Your task to perform on an android device: Open my contact list Image 0: 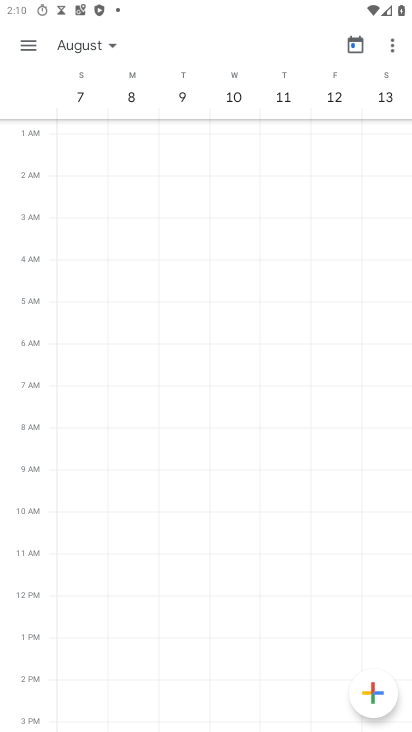
Step 0: press home button
Your task to perform on an android device: Open my contact list Image 1: 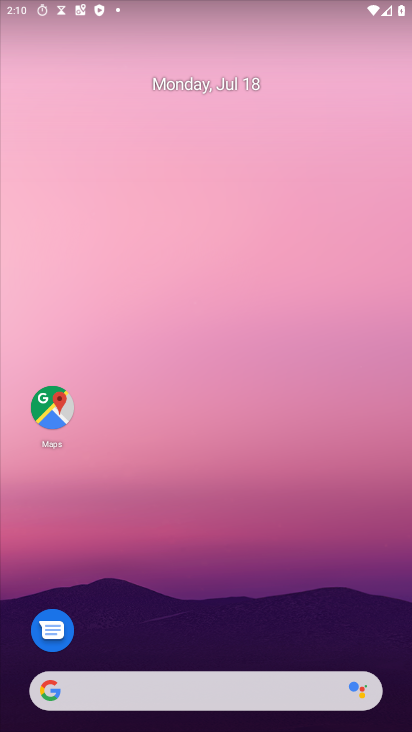
Step 1: drag from (206, 731) to (240, 116)
Your task to perform on an android device: Open my contact list Image 2: 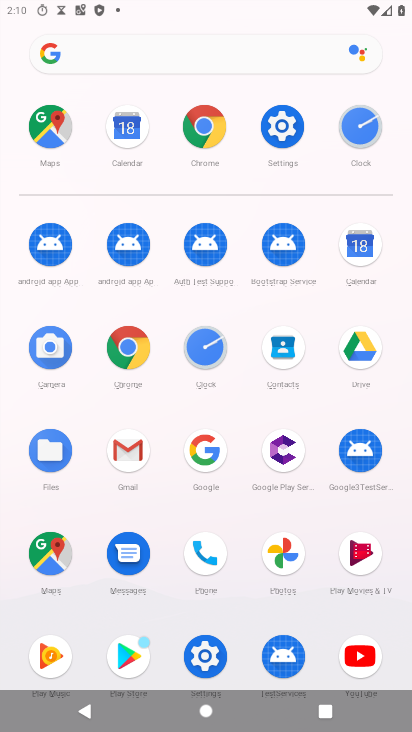
Step 2: click (281, 353)
Your task to perform on an android device: Open my contact list Image 3: 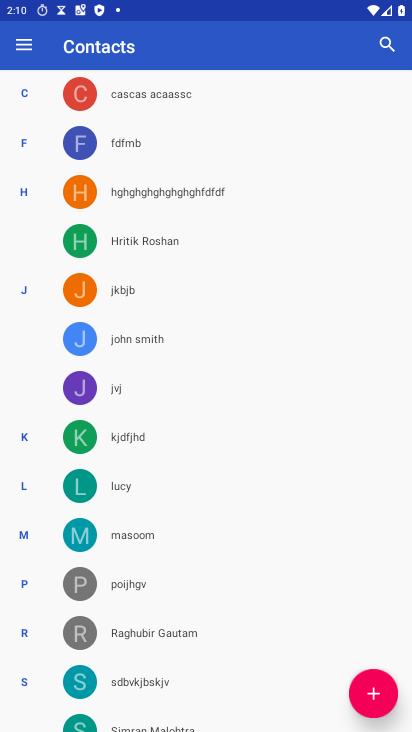
Step 3: click (378, 690)
Your task to perform on an android device: Open my contact list Image 4: 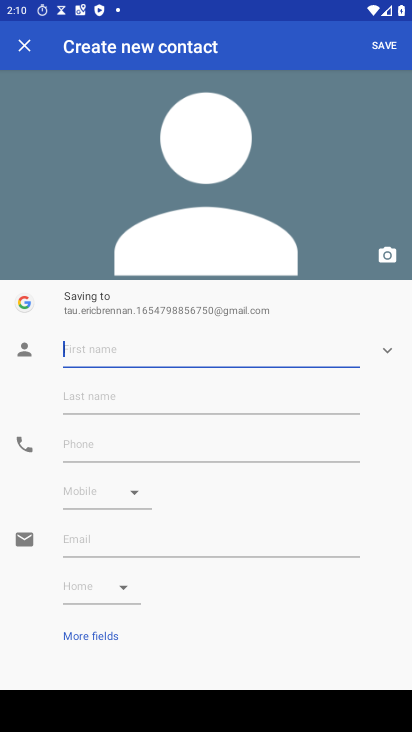
Step 4: type "messy"
Your task to perform on an android device: Open my contact list Image 5: 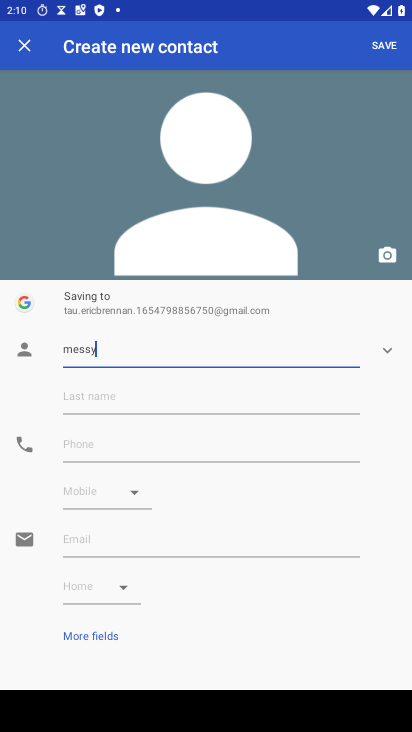
Step 5: click (235, 448)
Your task to perform on an android device: Open my contact list Image 6: 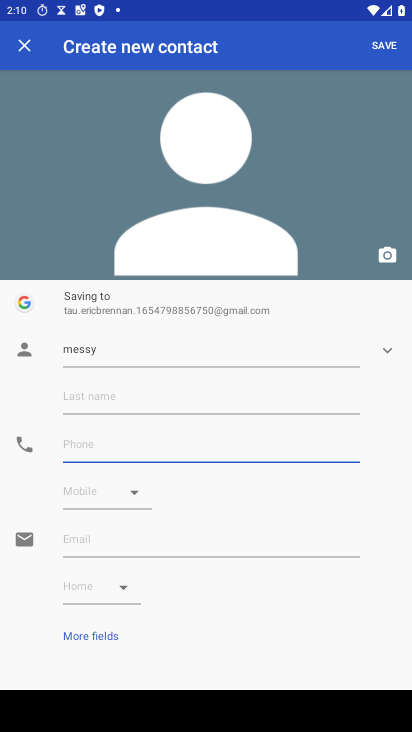
Step 6: type "9876567897"
Your task to perform on an android device: Open my contact list Image 7: 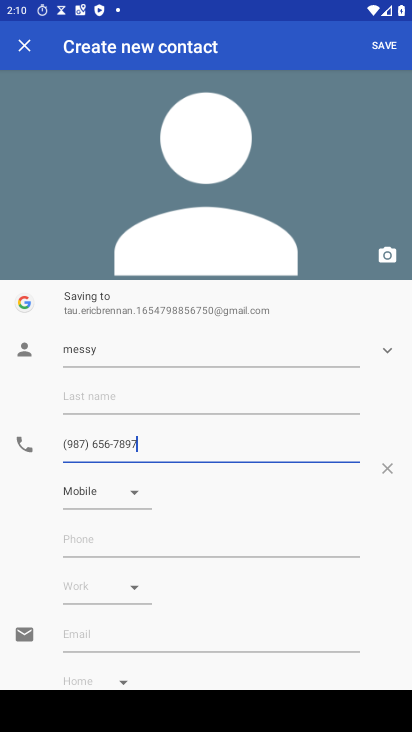
Step 7: click (396, 47)
Your task to perform on an android device: Open my contact list Image 8: 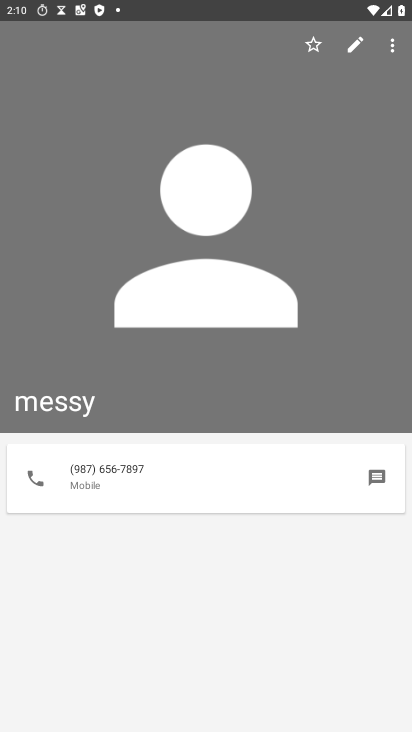
Step 8: task complete